Your task to perform on an android device: Set the phone to "Do not disturb". Image 0: 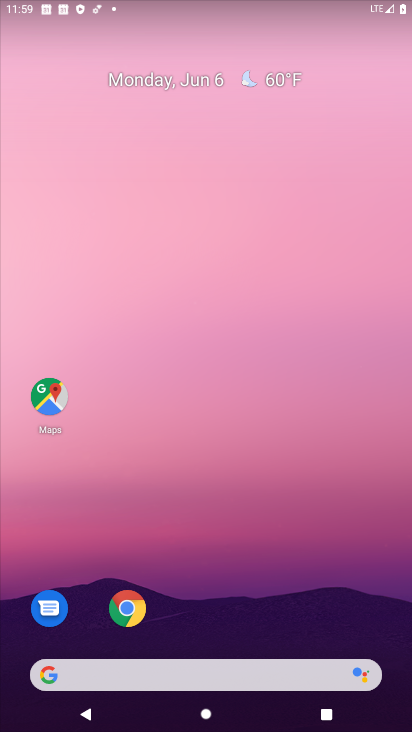
Step 0: drag from (282, 608) to (288, 0)
Your task to perform on an android device: Set the phone to "Do not disturb". Image 1: 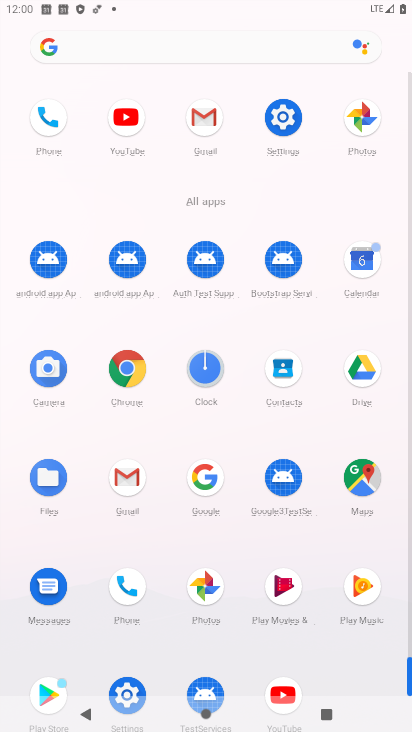
Step 1: click (276, 123)
Your task to perform on an android device: Set the phone to "Do not disturb". Image 2: 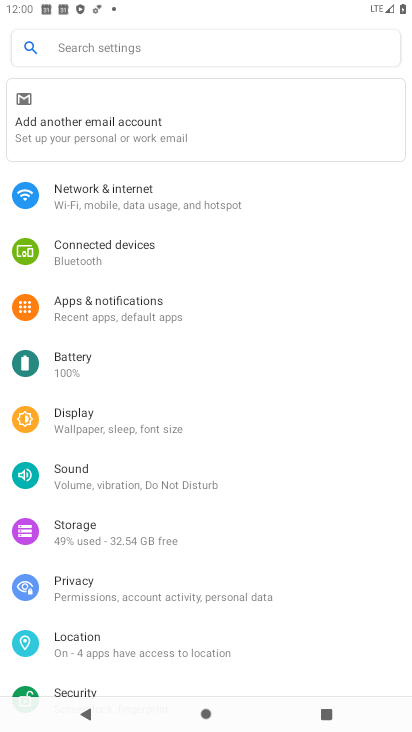
Step 2: click (128, 480)
Your task to perform on an android device: Set the phone to "Do not disturb". Image 3: 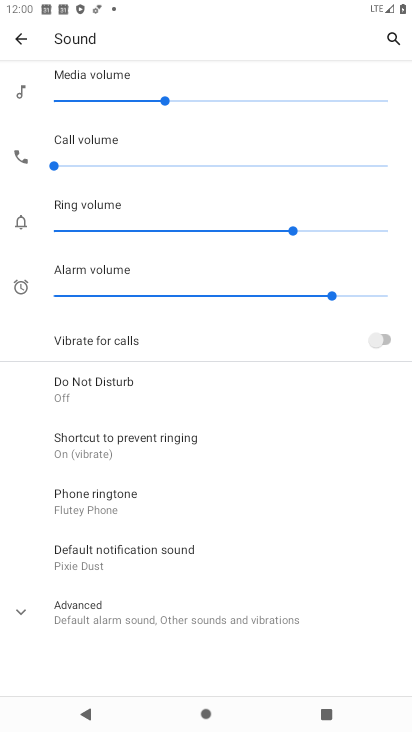
Step 3: click (104, 400)
Your task to perform on an android device: Set the phone to "Do not disturb". Image 4: 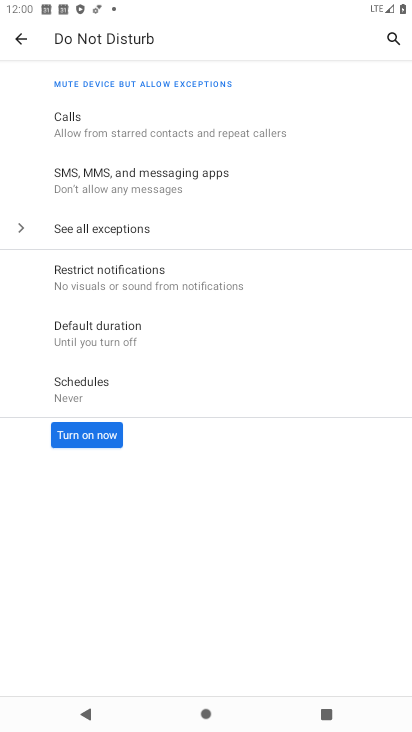
Step 4: click (91, 459)
Your task to perform on an android device: Set the phone to "Do not disturb". Image 5: 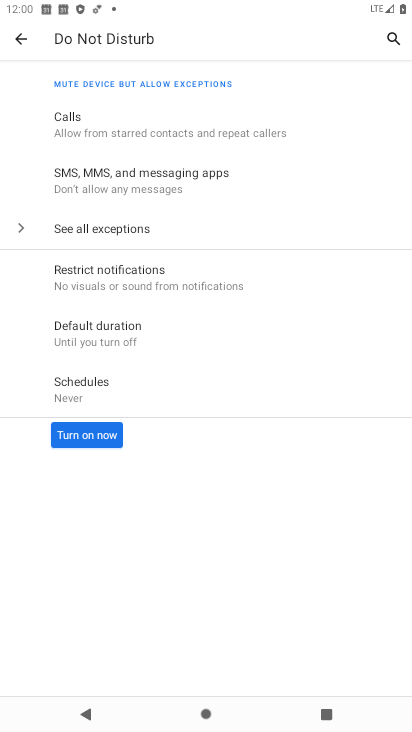
Step 5: click (92, 444)
Your task to perform on an android device: Set the phone to "Do not disturb". Image 6: 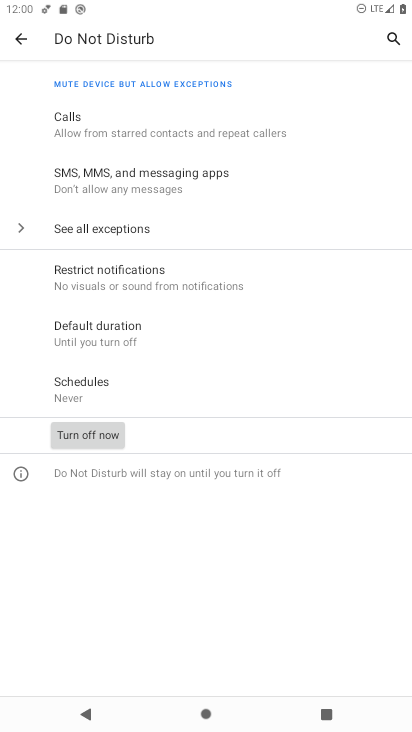
Step 6: task complete